Your task to perform on an android device: Search for the best vacuum on Walmart Image 0: 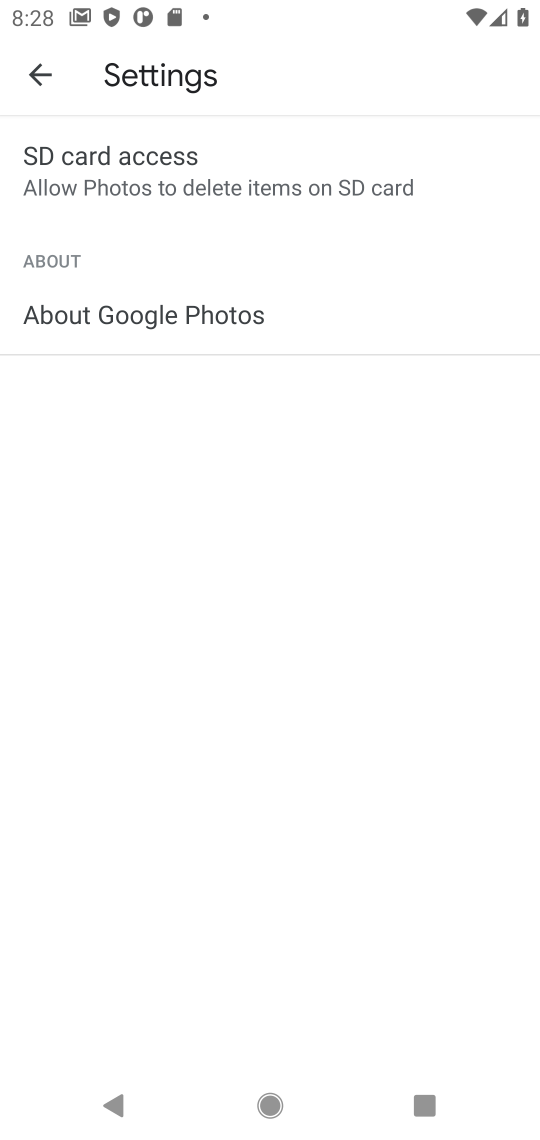
Step 0: press home button
Your task to perform on an android device: Search for the best vacuum on Walmart Image 1: 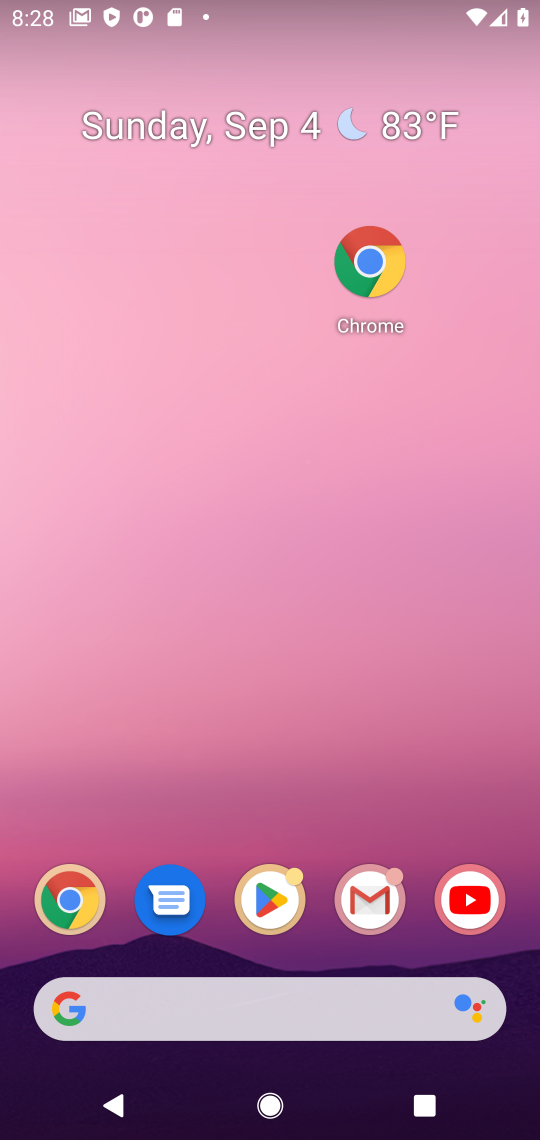
Step 1: drag from (238, 955) to (406, 24)
Your task to perform on an android device: Search for the best vacuum on Walmart Image 2: 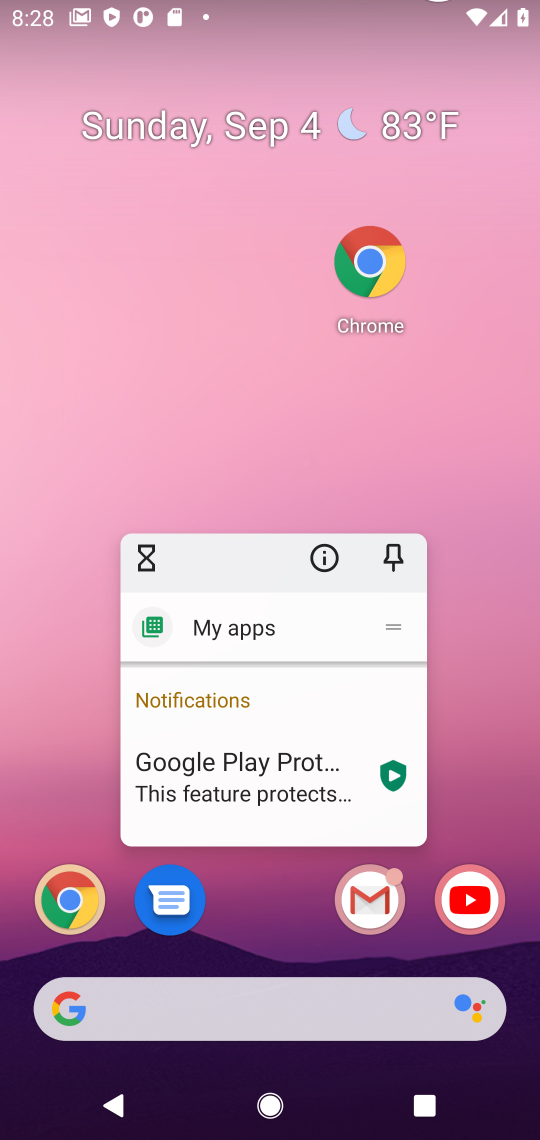
Step 2: click (220, 494)
Your task to perform on an android device: Search for the best vacuum on Walmart Image 3: 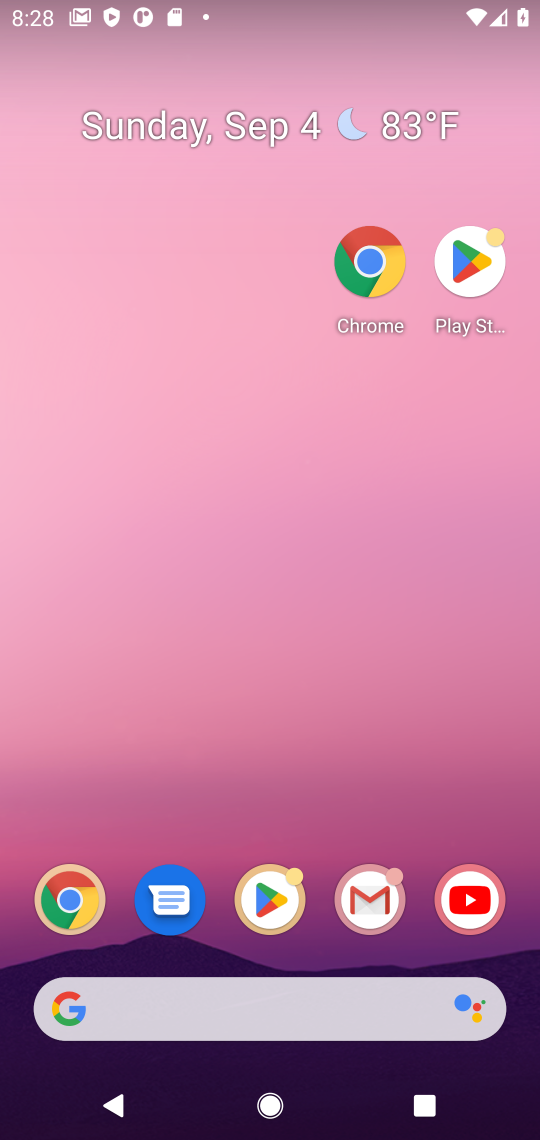
Step 3: drag from (346, 978) to (240, 251)
Your task to perform on an android device: Search for the best vacuum on Walmart Image 4: 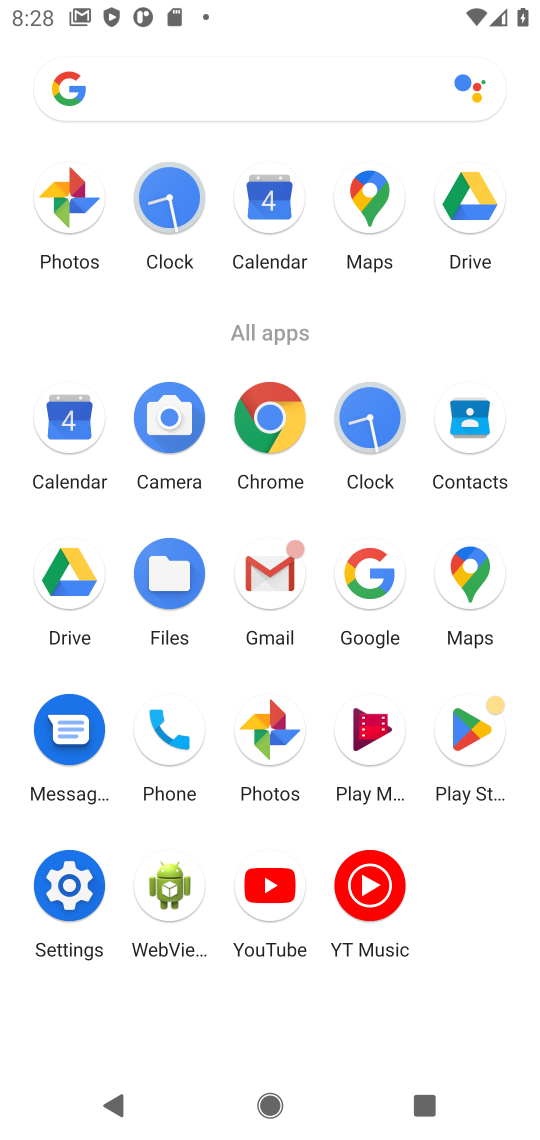
Step 4: click (264, 405)
Your task to perform on an android device: Search for the best vacuum on Walmart Image 5: 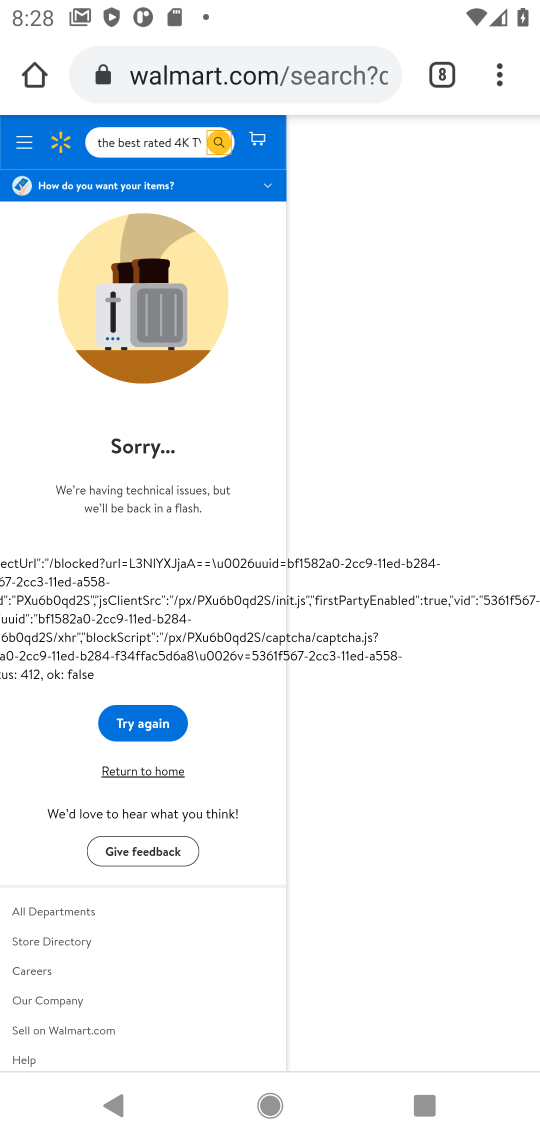
Step 5: click (204, 144)
Your task to perform on an android device: Search for the best vacuum on Walmart Image 6: 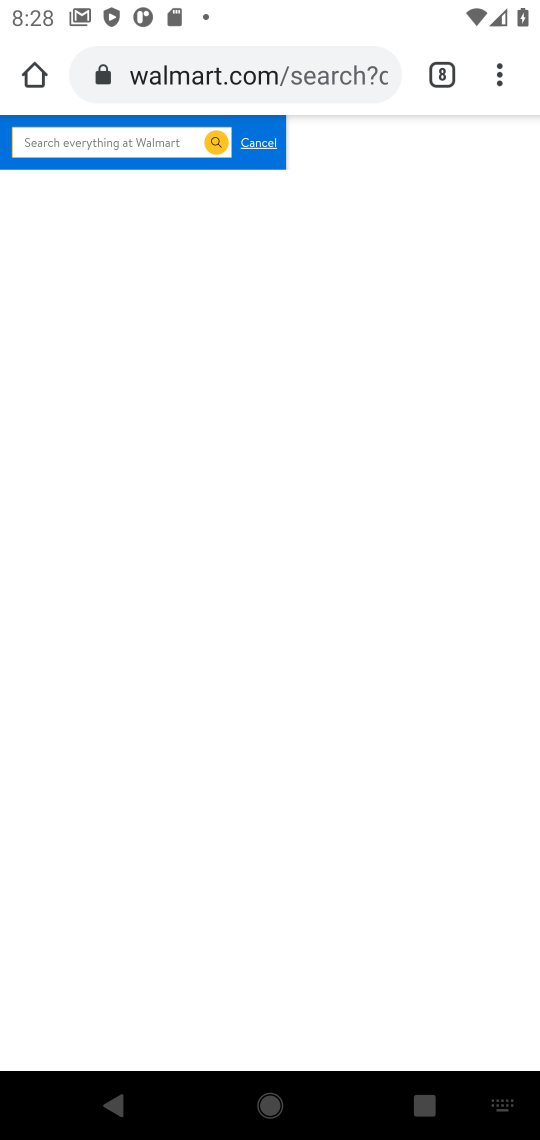
Step 6: type "the best vacuum"
Your task to perform on an android device: Search for the best vacuum on Walmart Image 7: 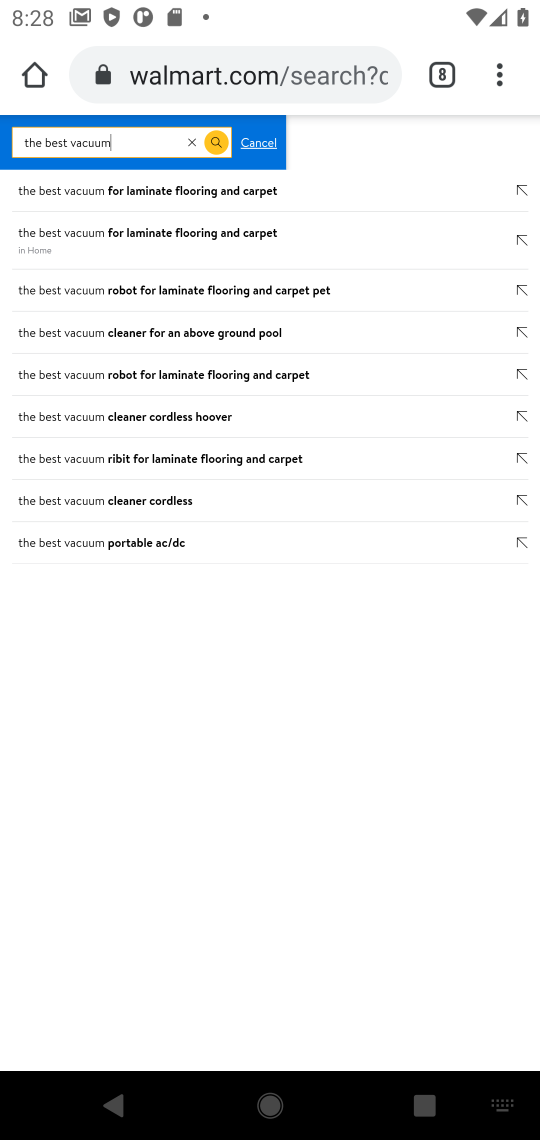
Step 7: click (213, 143)
Your task to perform on an android device: Search for the best vacuum on Walmart Image 8: 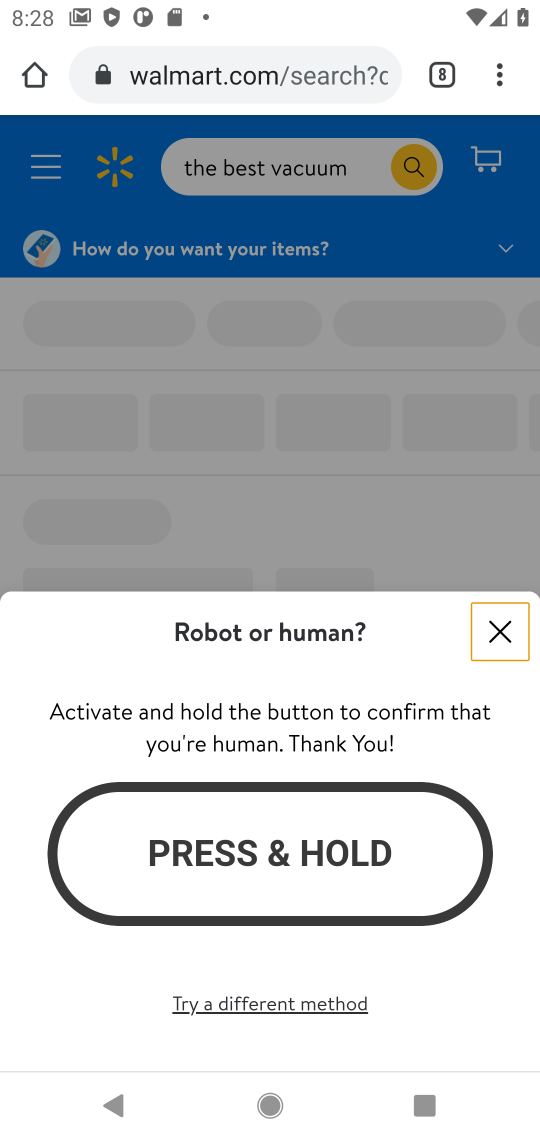
Step 8: click (492, 646)
Your task to perform on an android device: Search for the best vacuum on Walmart Image 9: 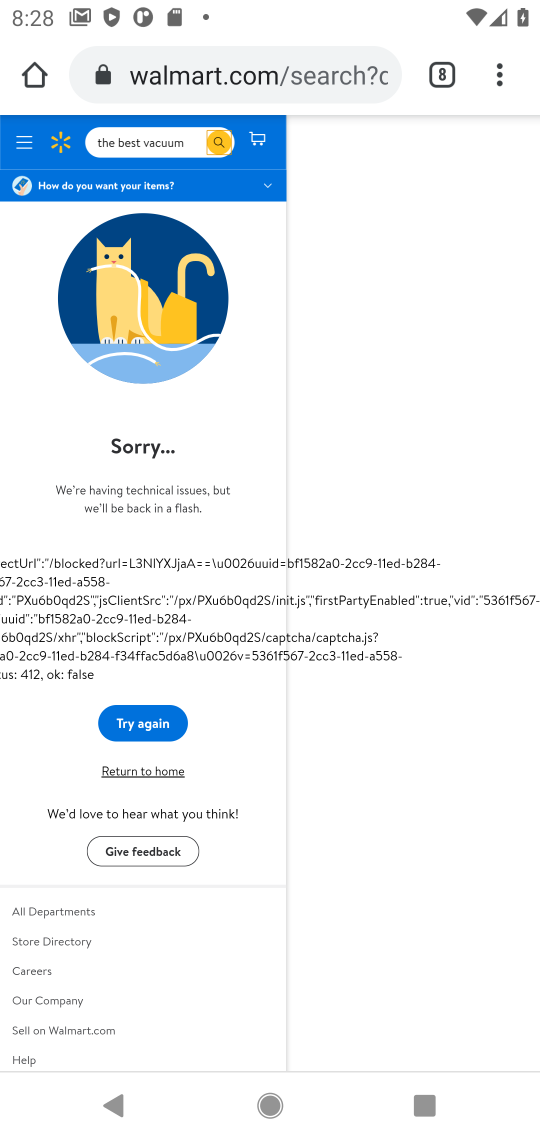
Step 9: task complete